Your task to perform on an android device: toggle notification dots Image 0: 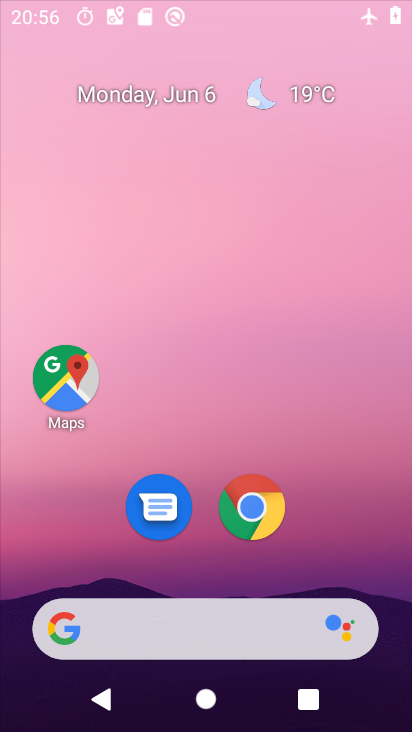
Step 0: press home button
Your task to perform on an android device: toggle notification dots Image 1: 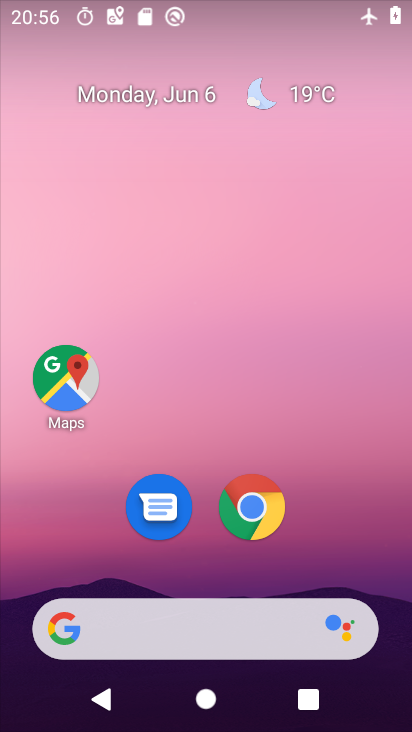
Step 1: drag from (325, 587) to (279, 16)
Your task to perform on an android device: toggle notification dots Image 2: 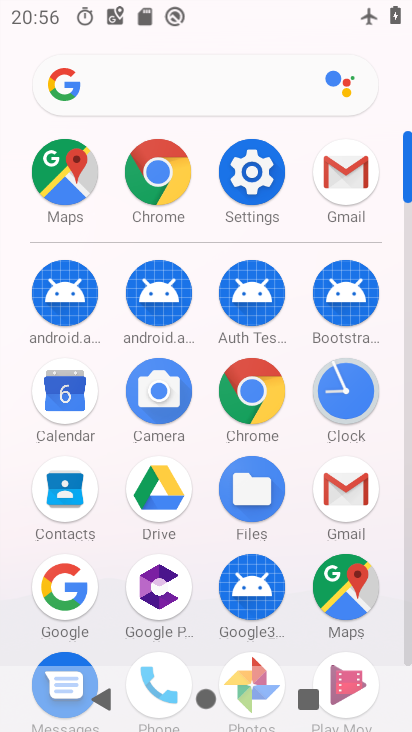
Step 2: click (268, 150)
Your task to perform on an android device: toggle notification dots Image 3: 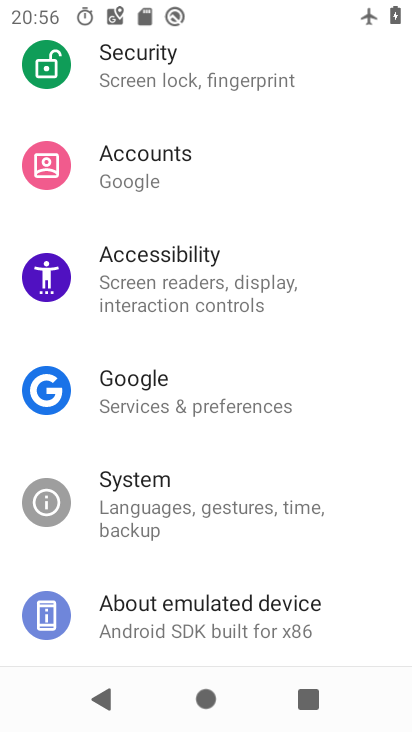
Step 3: drag from (174, 188) to (228, 722)
Your task to perform on an android device: toggle notification dots Image 4: 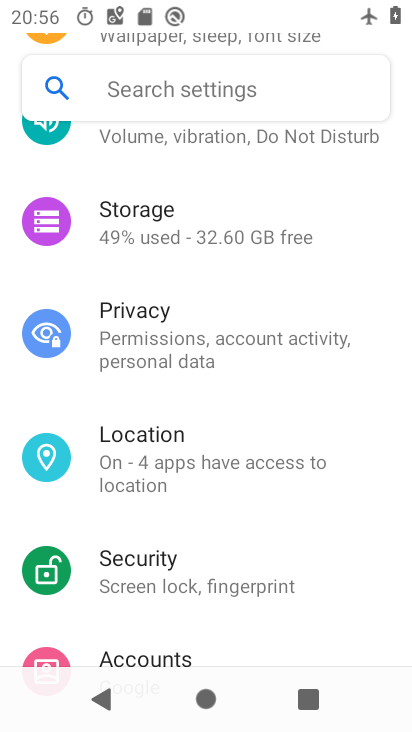
Step 4: drag from (168, 277) to (188, 731)
Your task to perform on an android device: toggle notification dots Image 5: 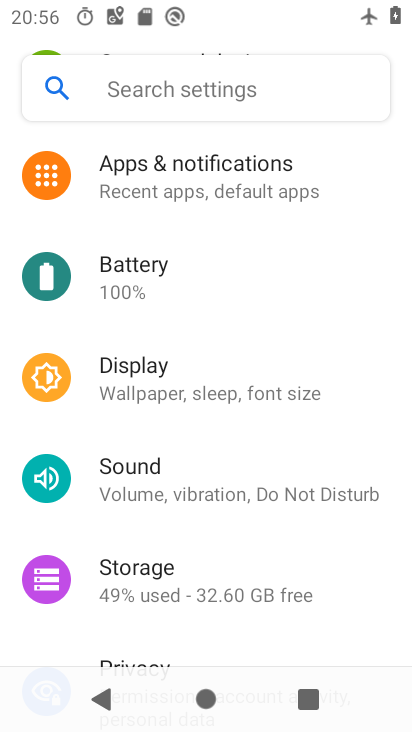
Step 5: click (192, 189)
Your task to perform on an android device: toggle notification dots Image 6: 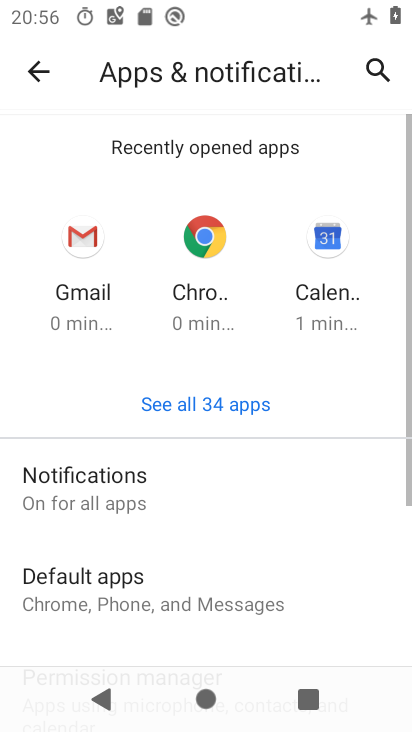
Step 6: click (195, 499)
Your task to perform on an android device: toggle notification dots Image 7: 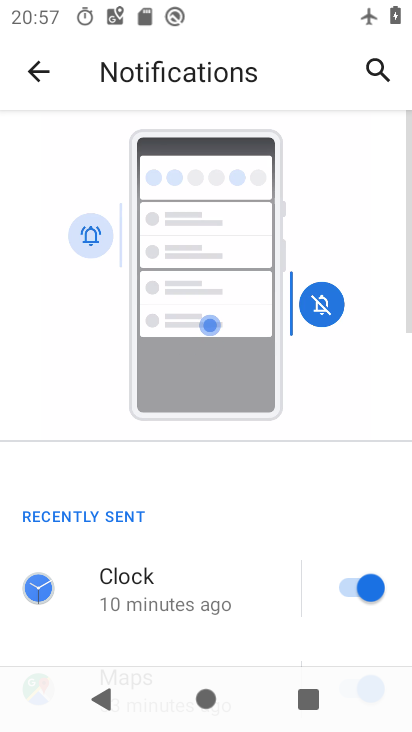
Step 7: drag from (220, 520) to (222, 0)
Your task to perform on an android device: toggle notification dots Image 8: 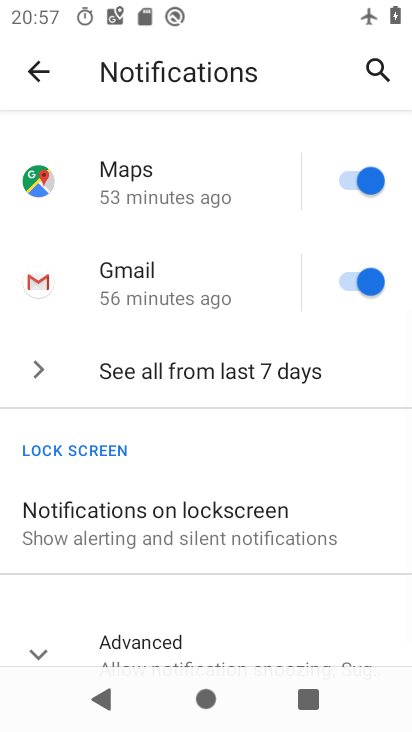
Step 8: drag from (178, 566) to (196, 181)
Your task to perform on an android device: toggle notification dots Image 9: 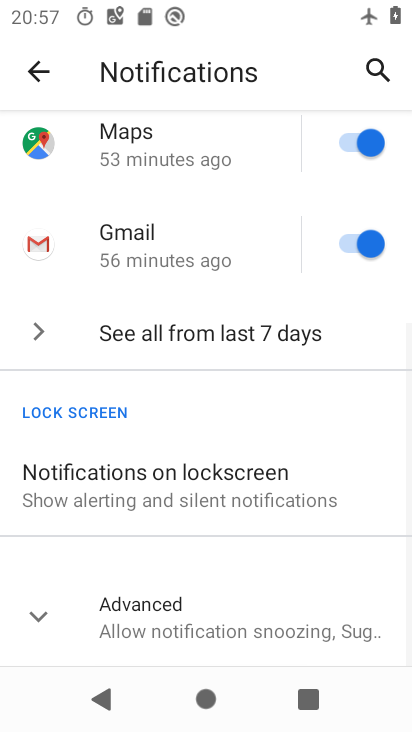
Step 9: click (173, 597)
Your task to perform on an android device: toggle notification dots Image 10: 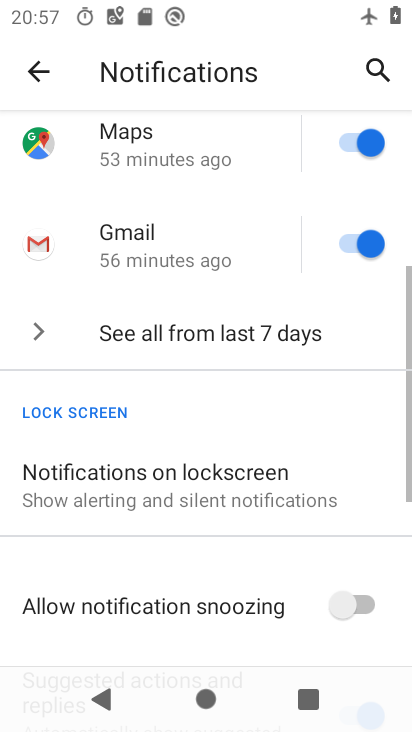
Step 10: drag from (244, 611) to (232, 269)
Your task to perform on an android device: toggle notification dots Image 11: 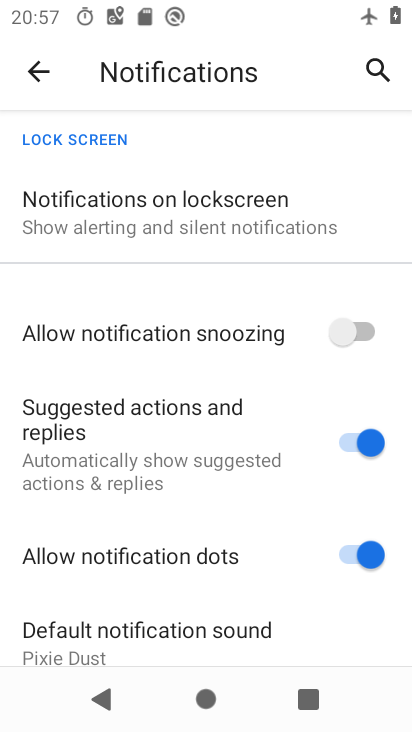
Step 11: click (131, 555)
Your task to perform on an android device: toggle notification dots Image 12: 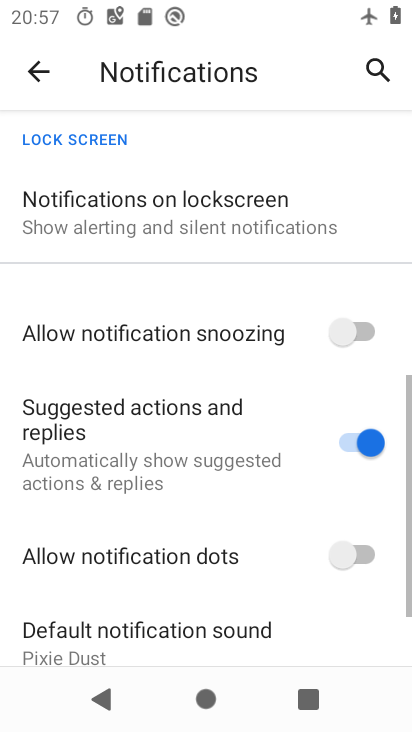
Step 12: task complete